Your task to perform on an android device: Go to Google Image 0: 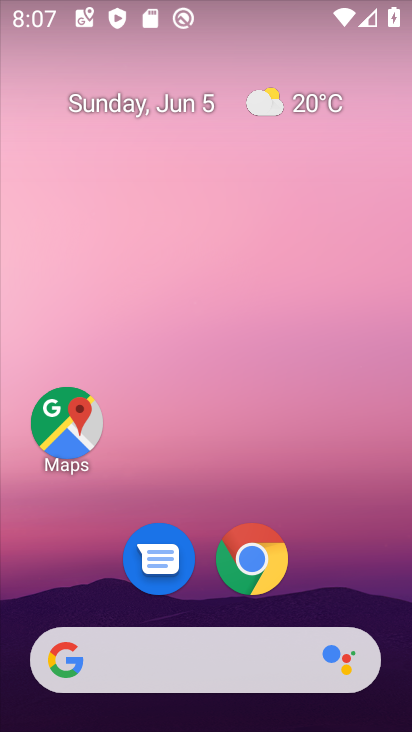
Step 0: drag from (321, 542) to (327, 236)
Your task to perform on an android device: Go to Google Image 1: 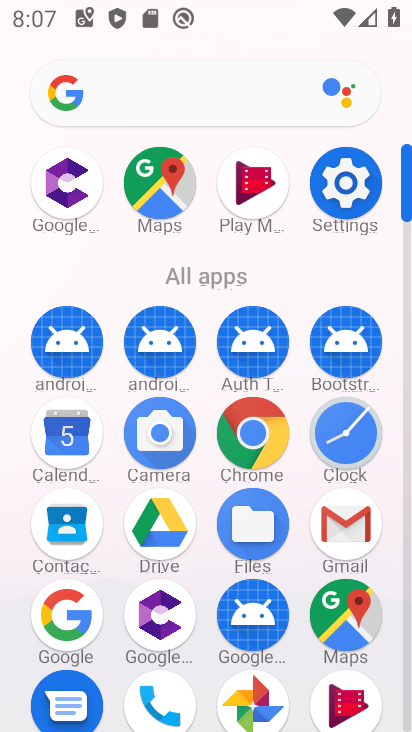
Step 1: click (67, 607)
Your task to perform on an android device: Go to Google Image 2: 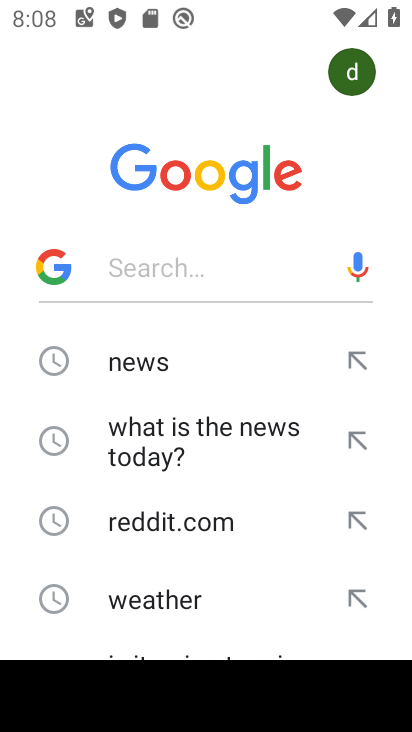
Step 2: task complete